Your task to perform on an android device: turn on showing notifications on the lock screen Image 0: 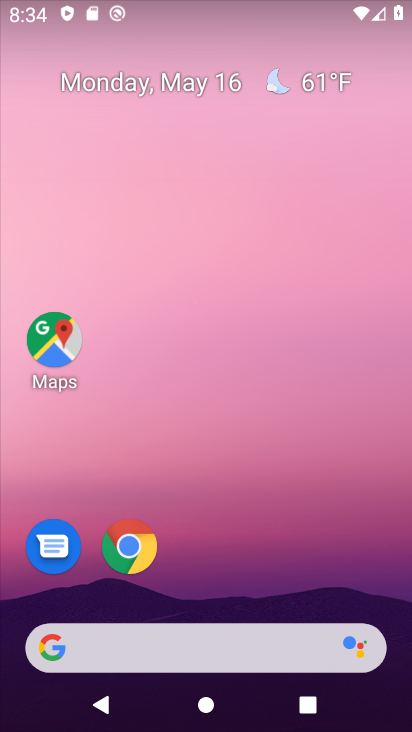
Step 0: drag from (257, 583) to (226, 271)
Your task to perform on an android device: turn on showing notifications on the lock screen Image 1: 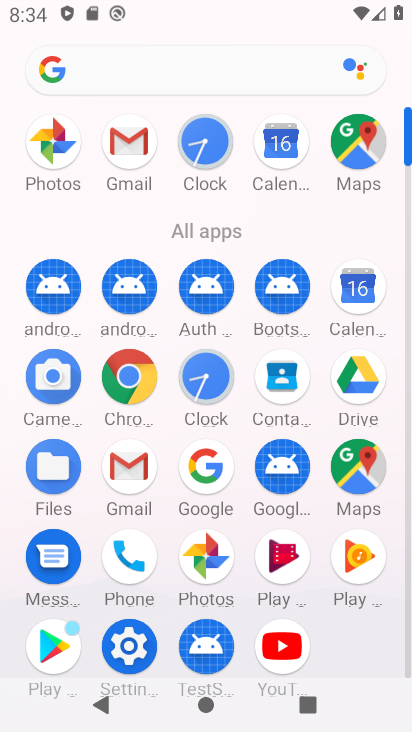
Step 1: click (117, 634)
Your task to perform on an android device: turn on showing notifications on the lock screen Image 2: 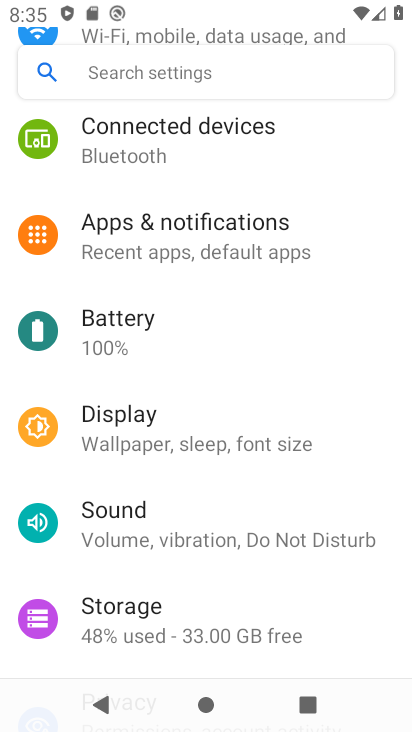
Step 2: click (156, 234)
Your task to perform on an android device: turn on showing notifications on the lock screen Image 3: 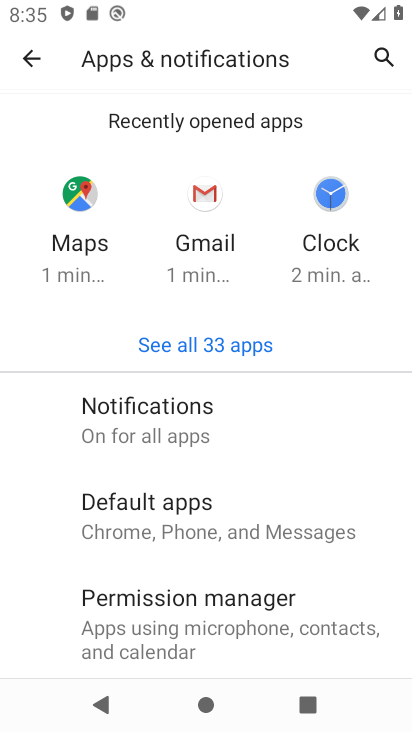
Step 3: click (151, 416)
Your task to perform on an android device: turn on showing notifications on the lock screen Image 4: 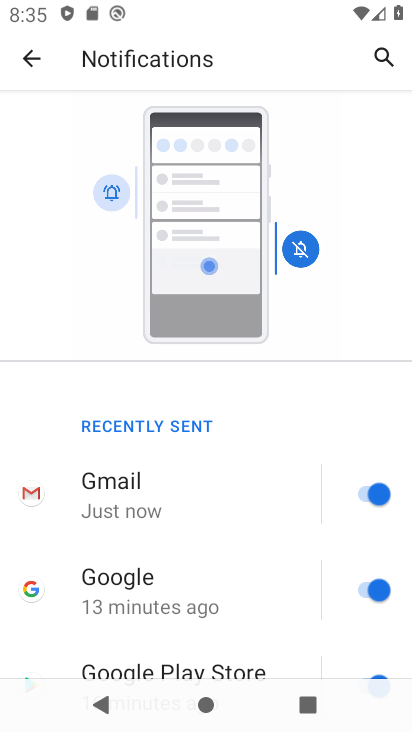
Step 4: drag from (211, 581) to (182, 193)
Your task to perform on an android device: turn on showing notifications on the lock screen Image 5: 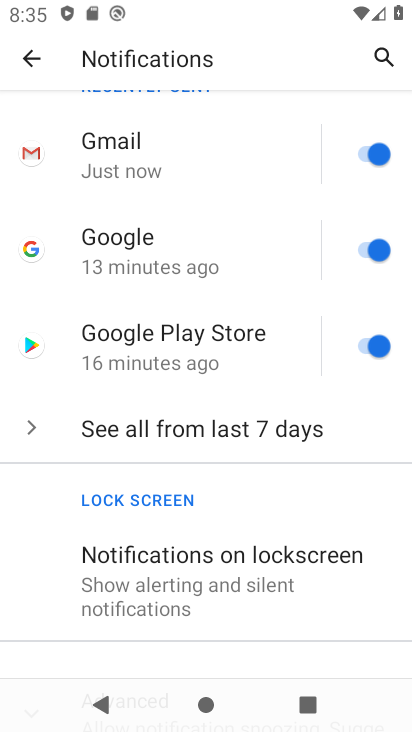
Step 5: click (156, 586)
Your task to perform on an android device: turn on showing notifications on the lock screen Image 6: 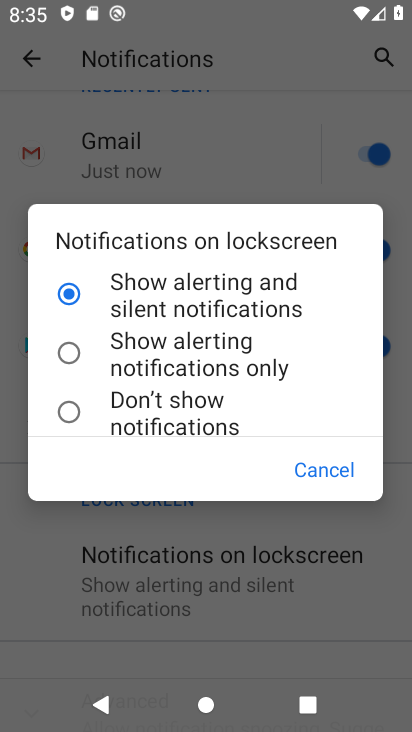
Step 6: task complete